Your task to perform on an android device: open app "NewsBreak: Local News & Alerts" (install if not already installed), go to login, and select forgot password Image 0: 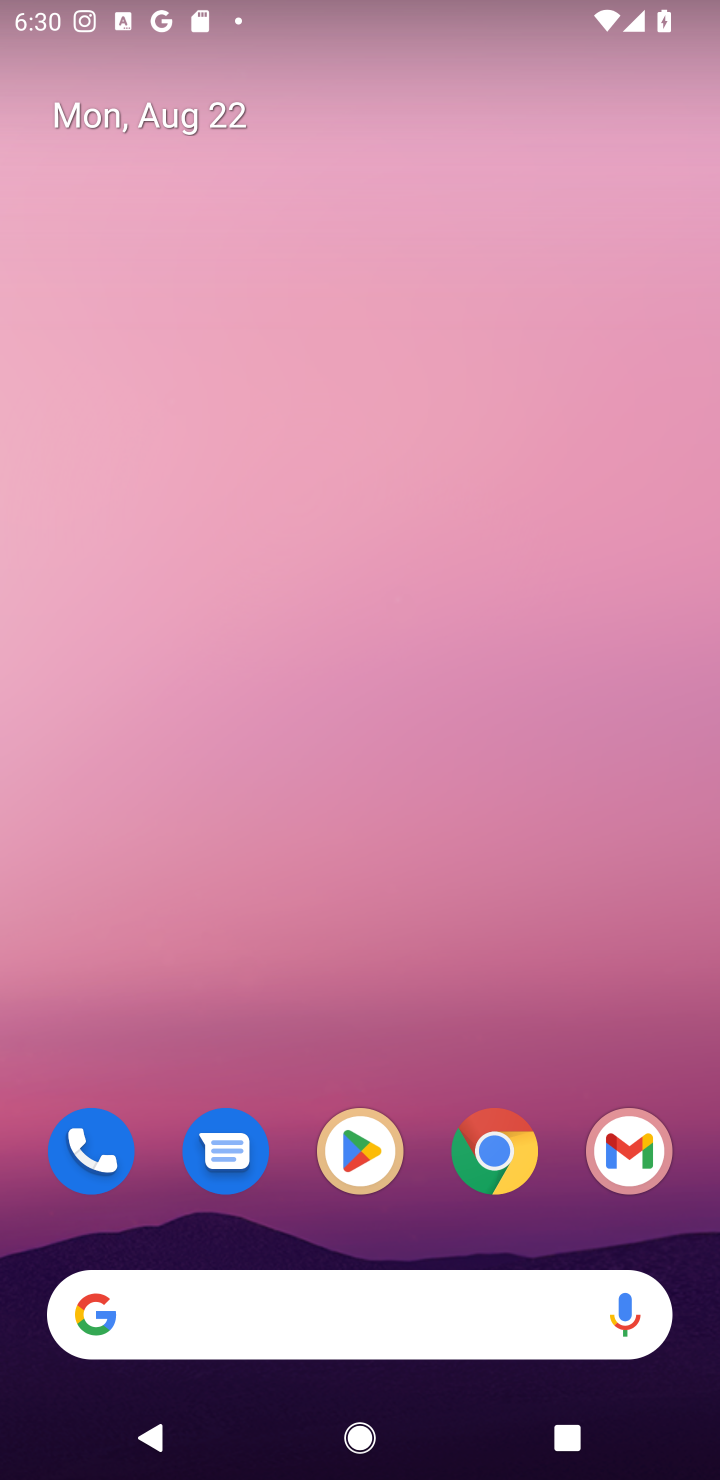
Step 0: click (364, 1144)
Your task to perform on an android device: open app "NewsBreak: Local News & Alerts" (install if not already installed), go to login, and select forgot password Image 1: 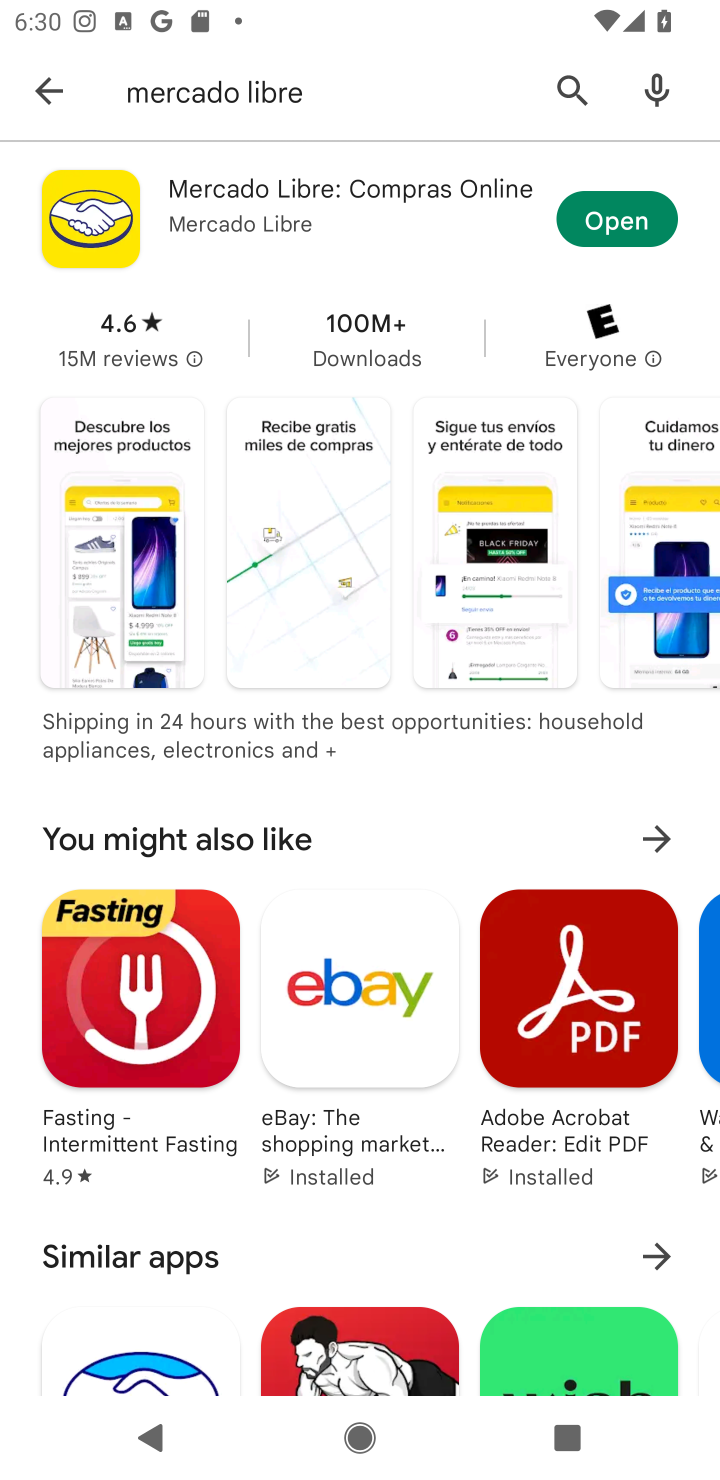
Step 1: click (570, 95)
Your task to perform on an android device: open app "NewsBreak: Local News & Alerts" (install if not already installed), go to login, and select forgot password Image 2: 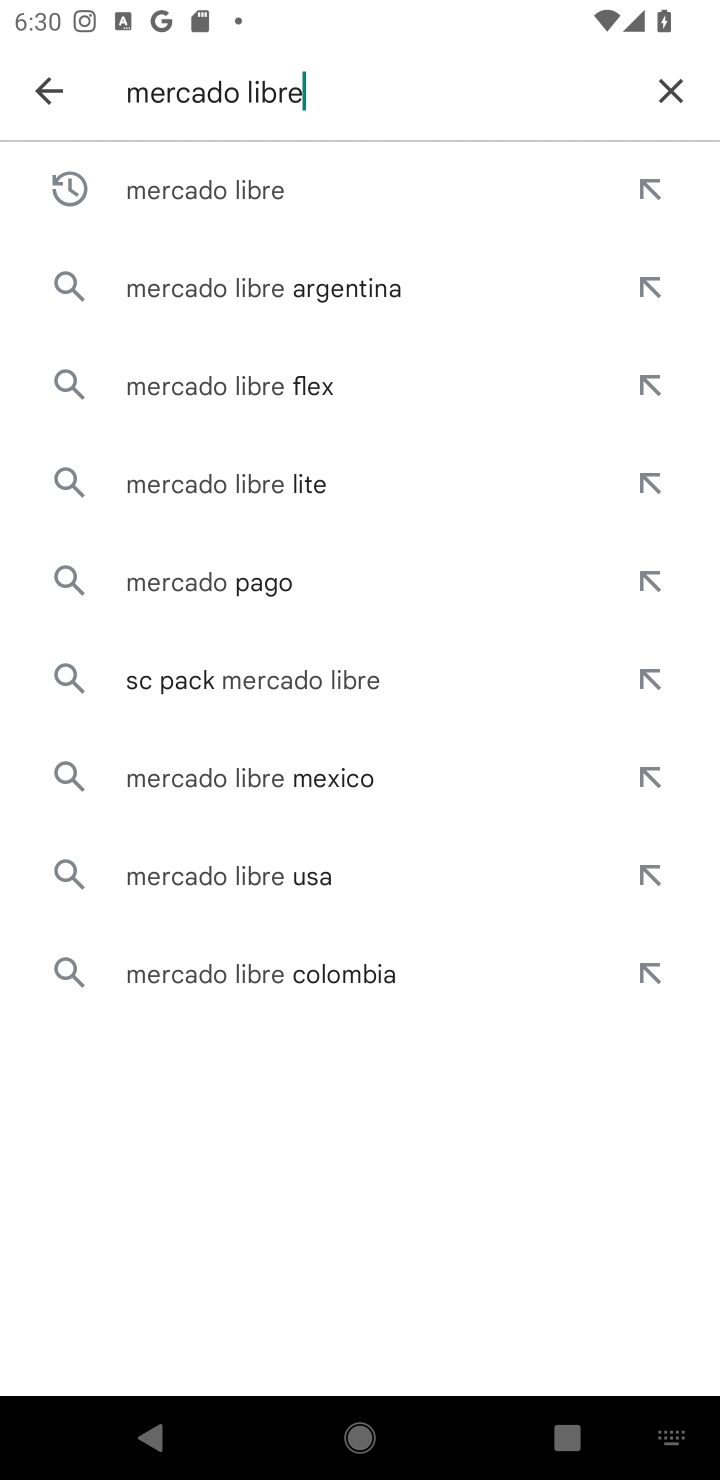
Step 2: click (669, 91)
Your task to perform on an android device: open app "NewsBreak: Local News & Alerts" (install if not already installed), go to login, and select forgot password Image 3: 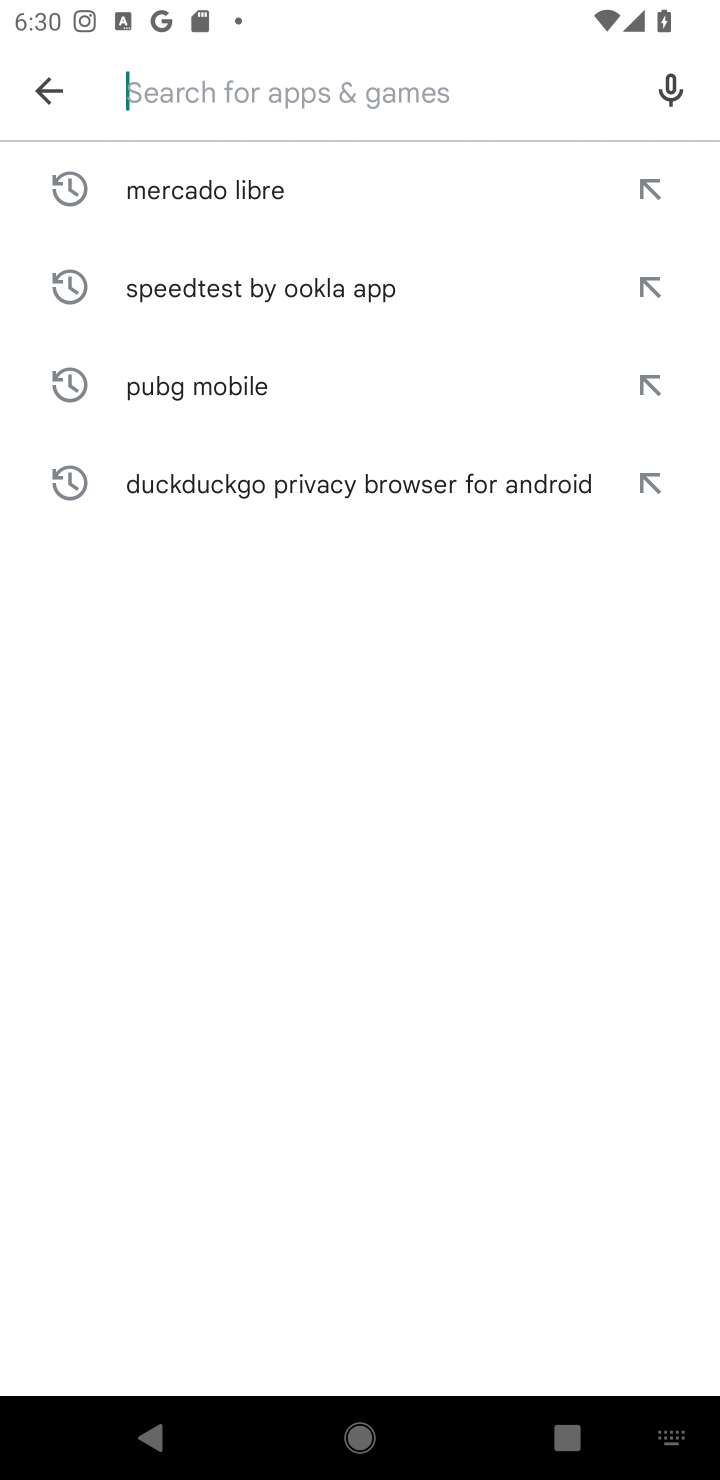
Step 3: type "NewsBreak: Local News & Alerts"
Your task to perform on an android device: open app "NewsBreak: Local News & Alerts" (install if not already installed), go to login, and select forgot password Image 4: 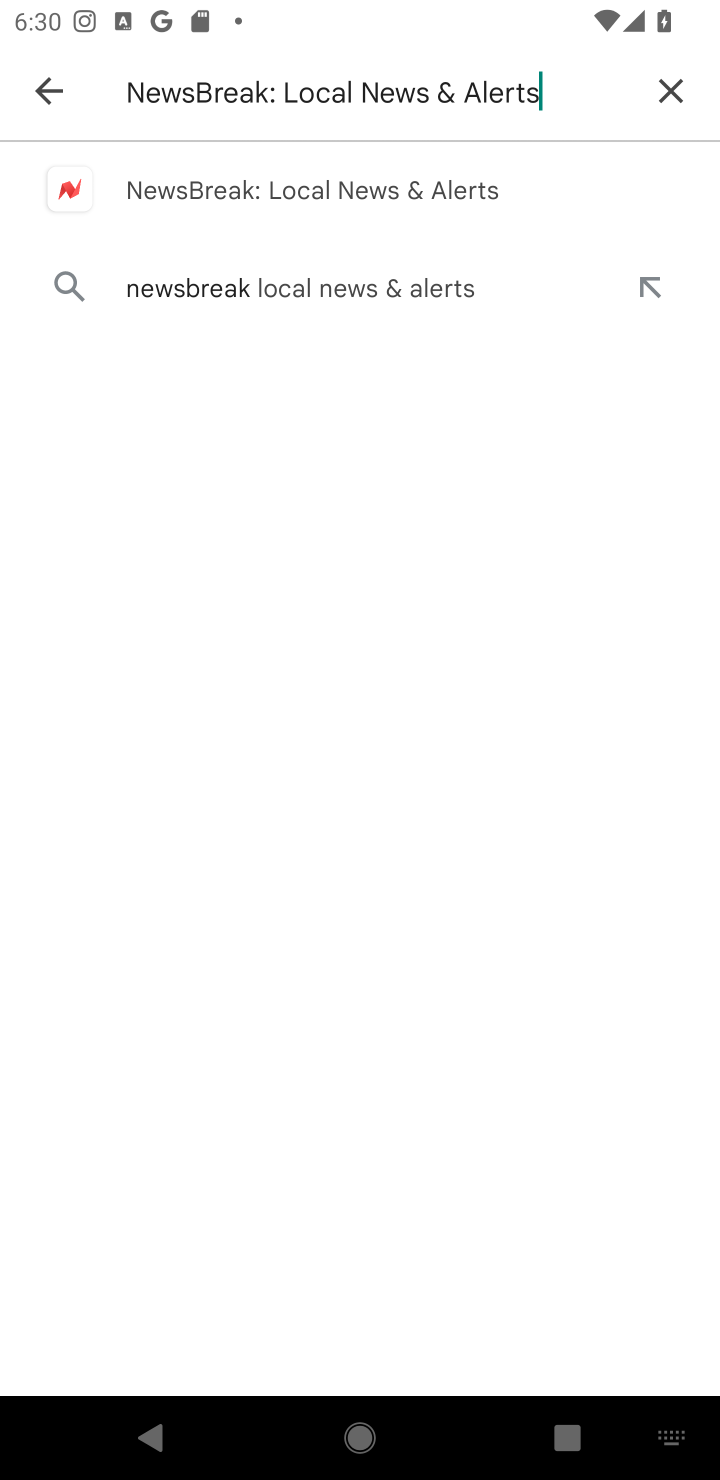
Step 4: click (273, 182)
Your task to perform on an android device: open app "NewsBreak: Local News & Alerts" (install if not already installed), go to login, and select forgot password Image 5: 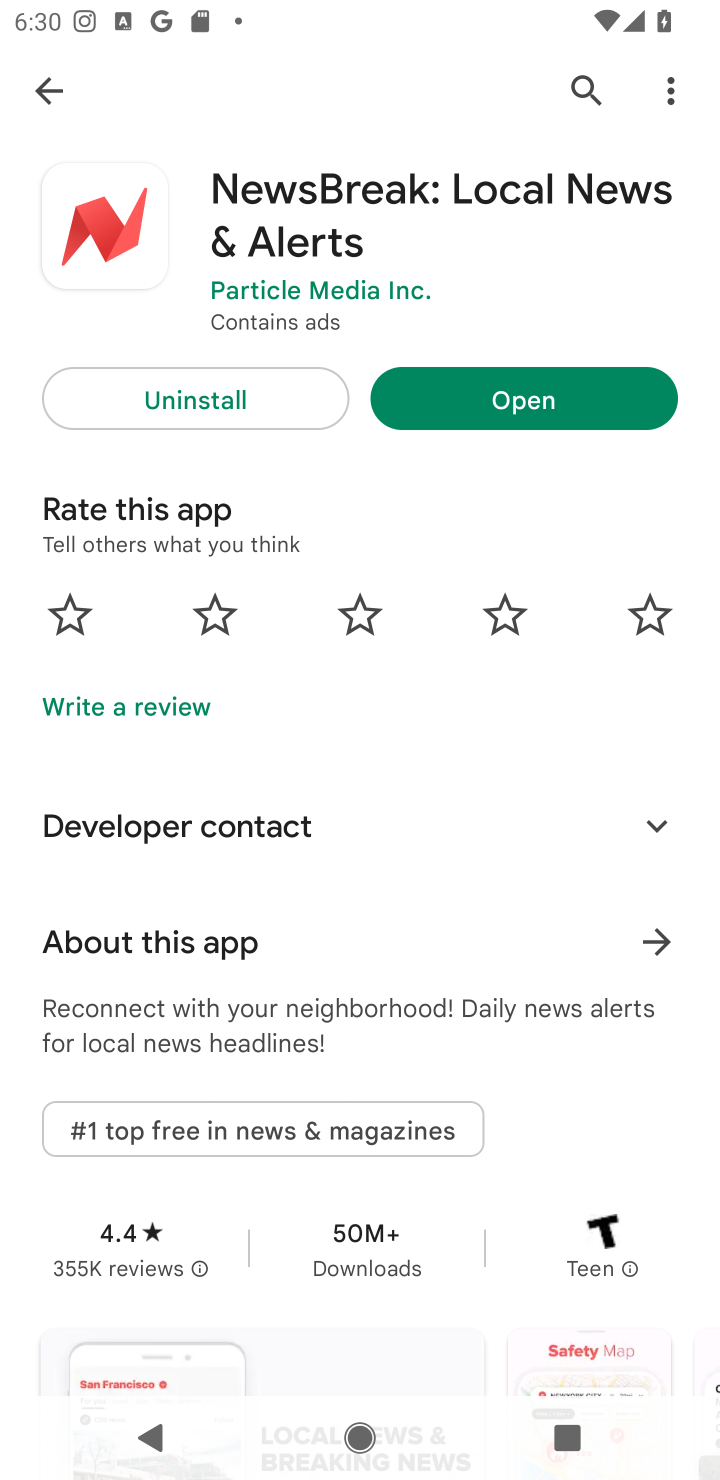
Step 5: click (512, 400)
Your task to perform on an android device: open app "NewsBreak: Local News & Alerts" (install if not already installed), go to login, and select forgot password Image 6: 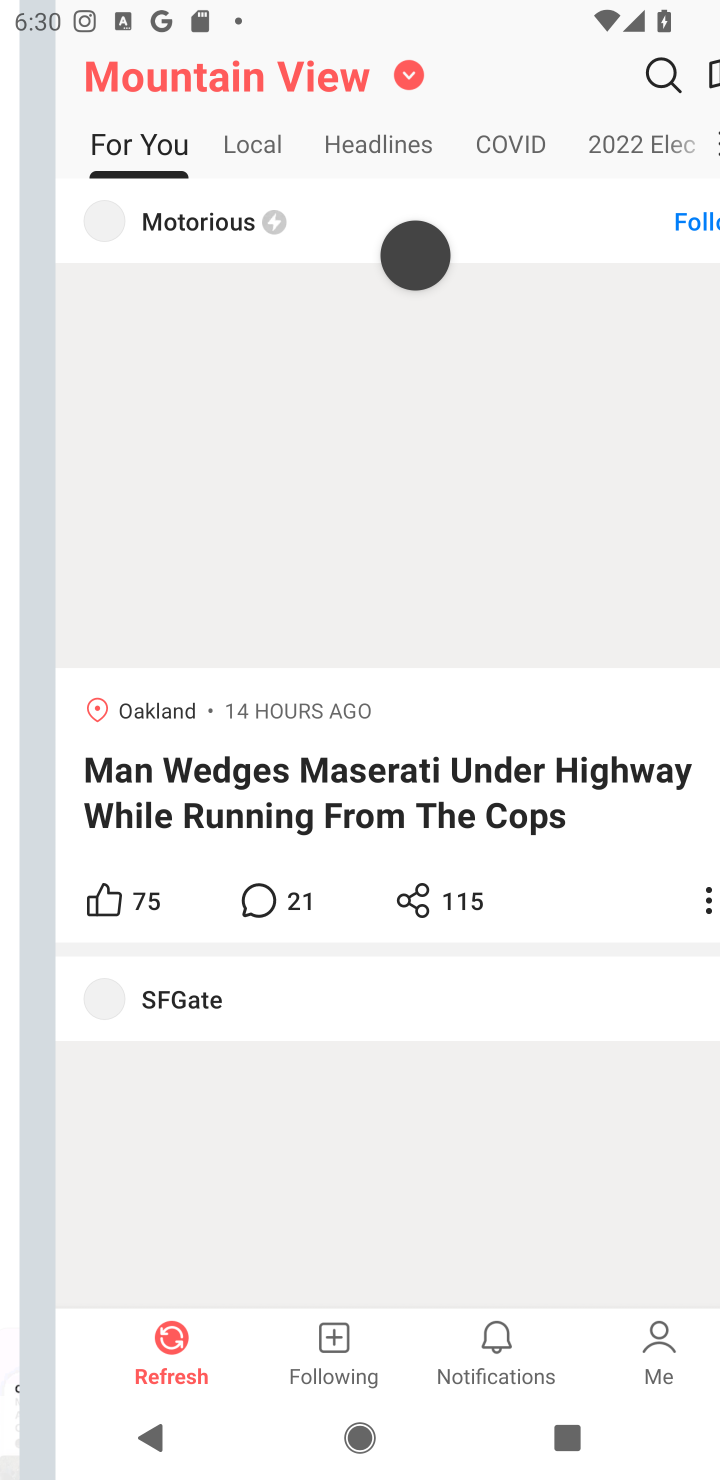
Step 6: click (517, 403)
Your task to perform on an android device: open app "NewsBreak: Local News & Alerts" (install if not already installed), go to login, and select forgot password Image 7: 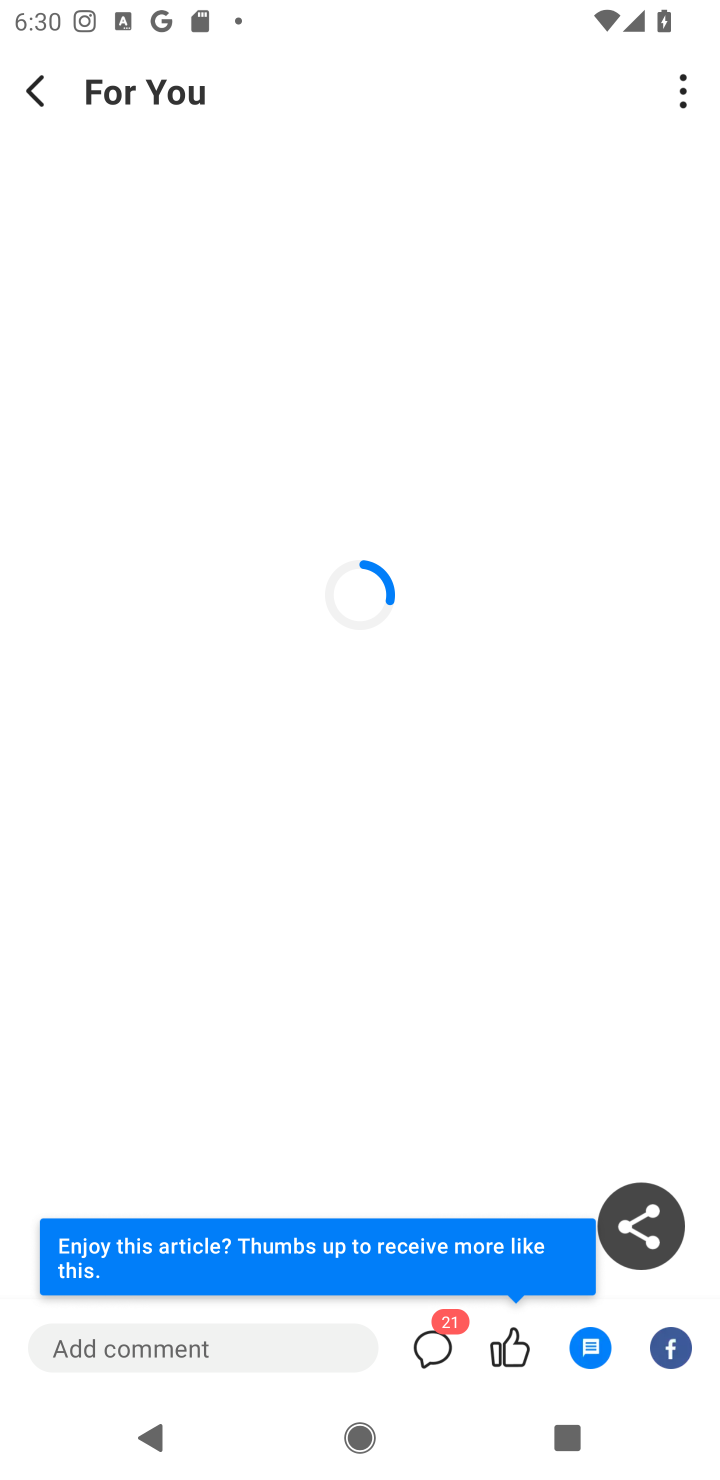
Step 7: task complete